Your task to perform on an android device: open app "Lyft - Rideshare, Bikes, Scooters & Transit" (install if not already installed) Image 0: 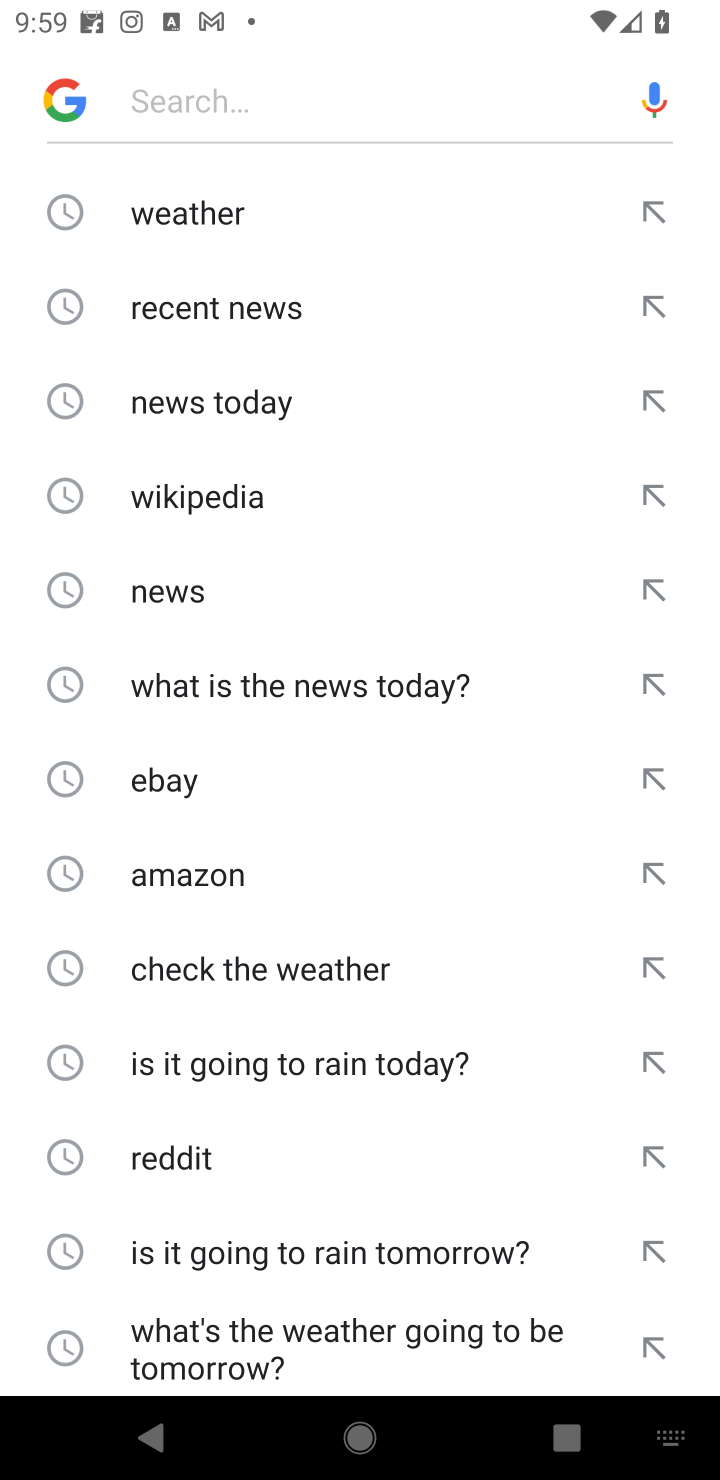
Step 0: press home button
Your task to perform on an android device: open app "Lyft - Rideshare, Bikes, Scooters & Transit" (install if not already installed) Image 1: 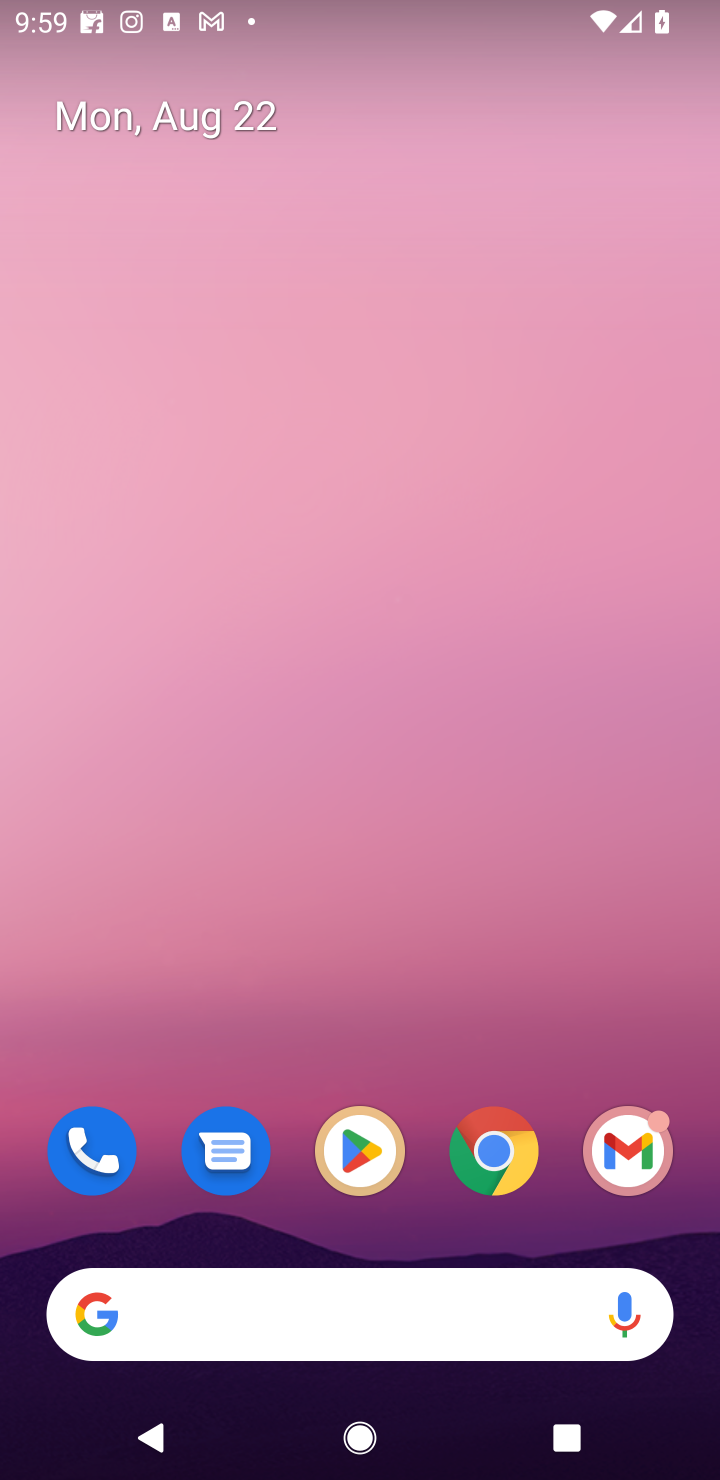
Step 1: click (351, 1149)
Your task to perform on an android device: open app "Lyft - Rideshare, Bikes, Scooters & Transit" (install if not already installed) Image 2: 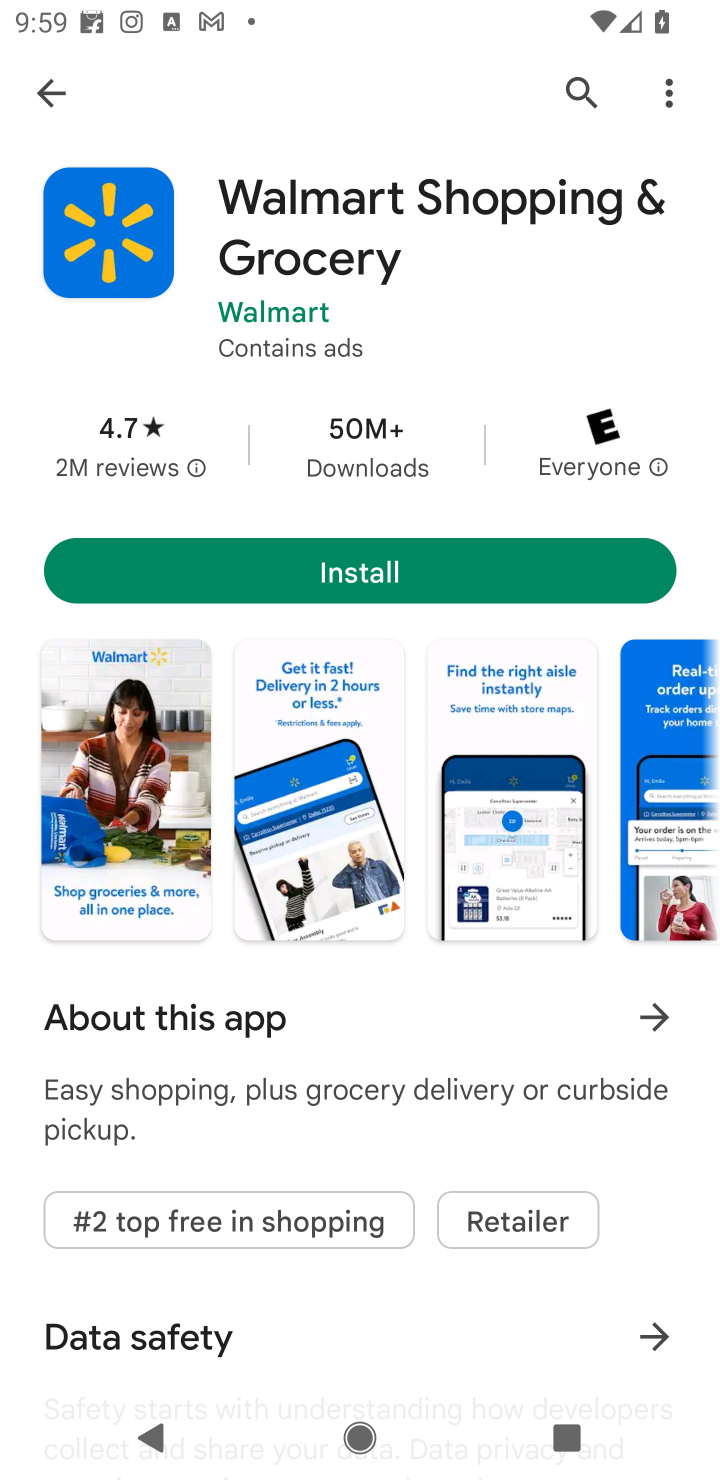
Step 2: click (588, 77)
Your task to perform on an android device: open app "Lyft - Rideshare, Bikes, Scooters & Transit" (install if not already installed) Image 3: 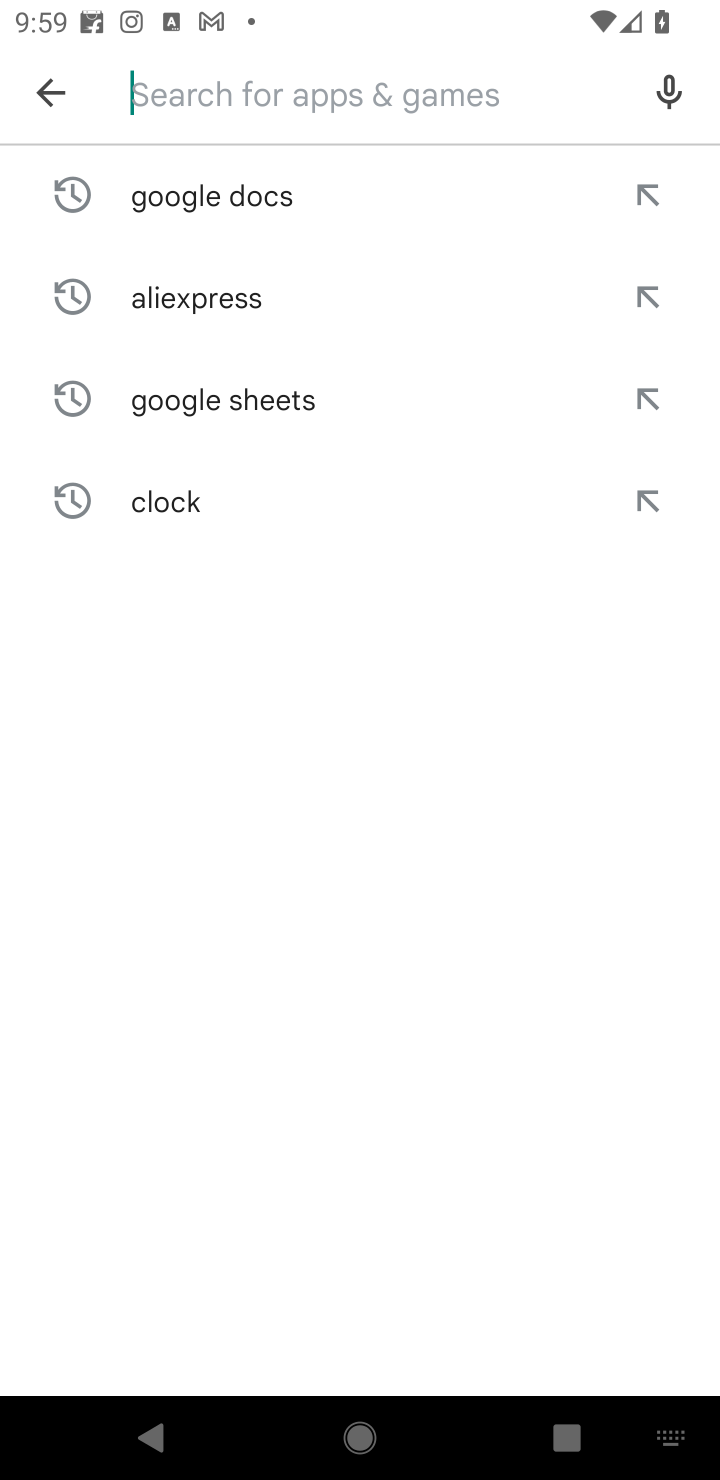
Step 3: type "Lyft - Rideshare, Bikes, Scooters & Transit"
Your task to perform on an android device: open app "Lyft - Rideshare, Bikes, Scooters & Transit" (install if not already installed) Image 4: 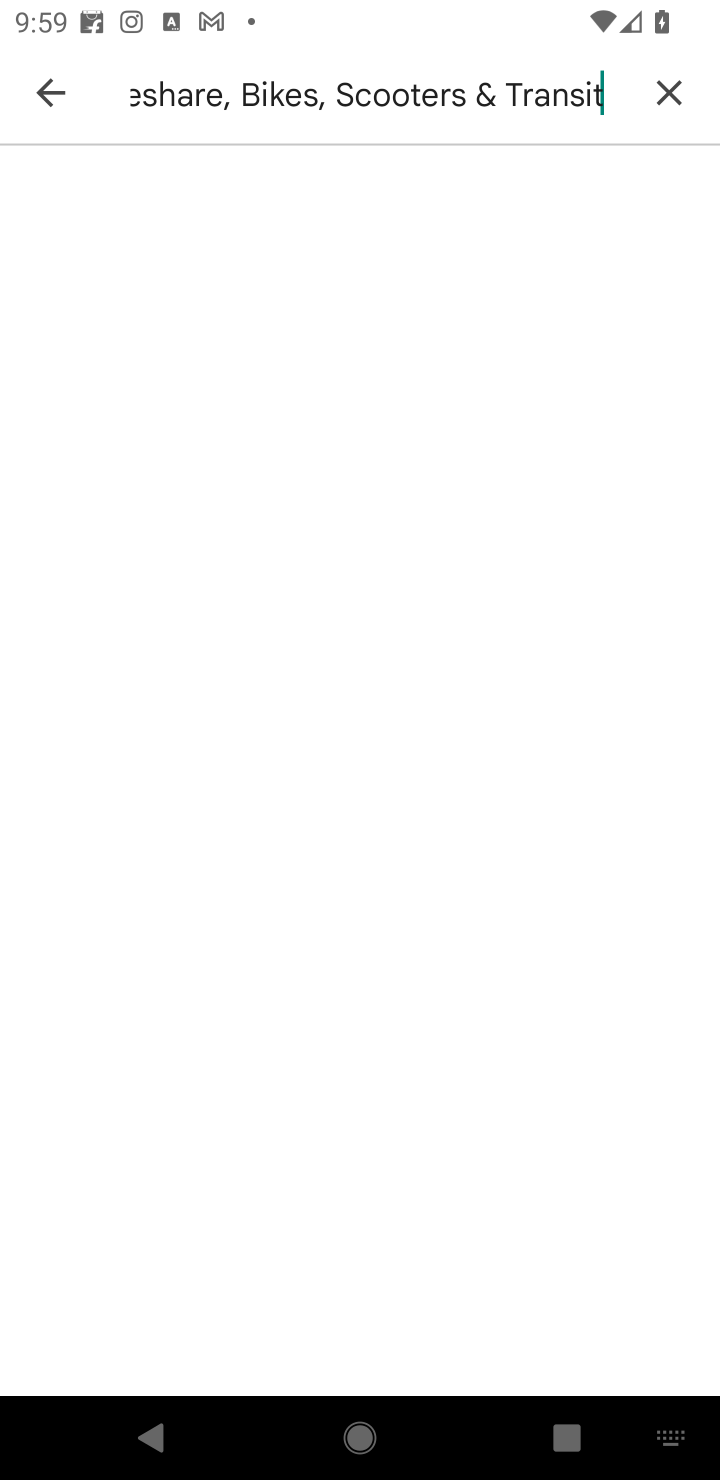
Step 4: click (675, 77)
Your task to perform on an android device: open app "Lyft - Rideshare, Bikes, Scooters & Transit" (install if not already installed) Image 5: 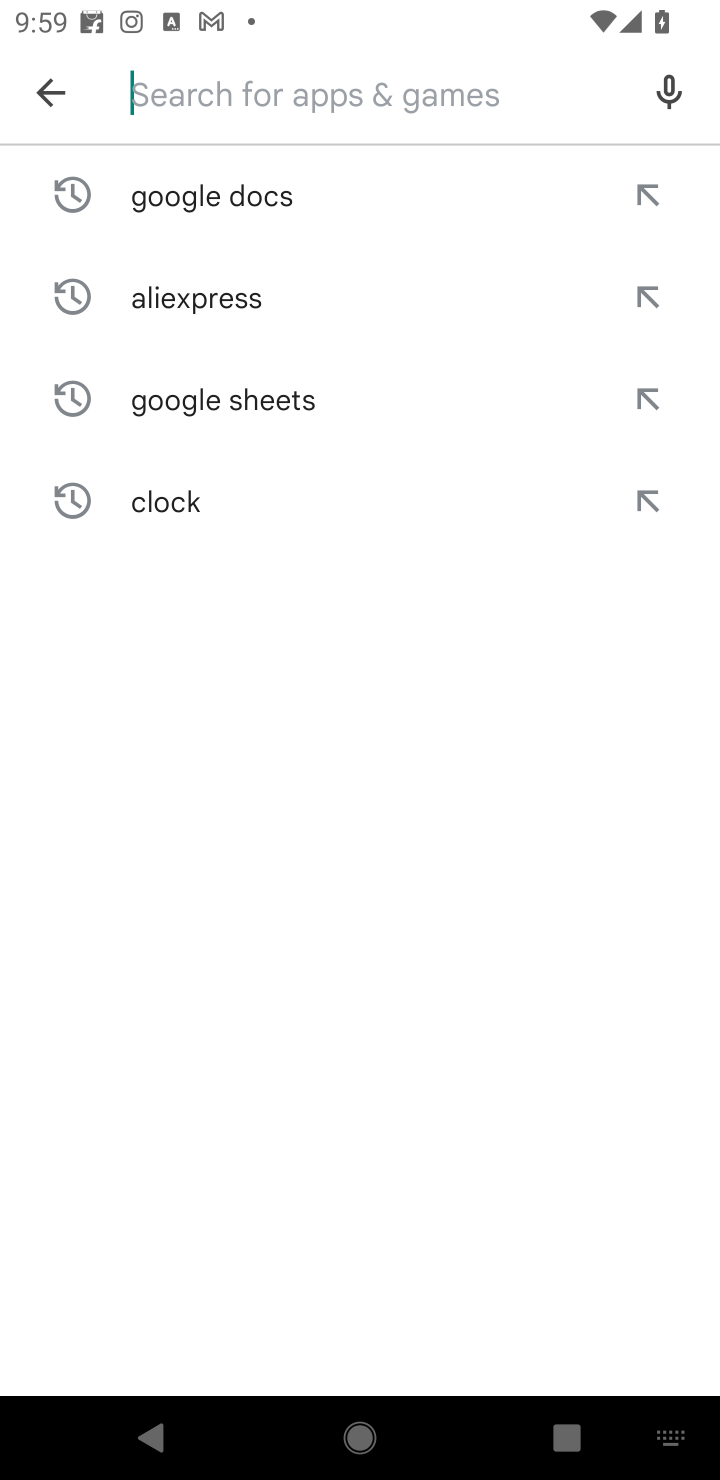
Step 5: type "Lyft Rideshare, Bikes, Scooters & Transit"
Your task to perform on an android device: open app "Lyft - Rideshare, Bikes, Scooters & Transit" (install if not already installed) Image 6: 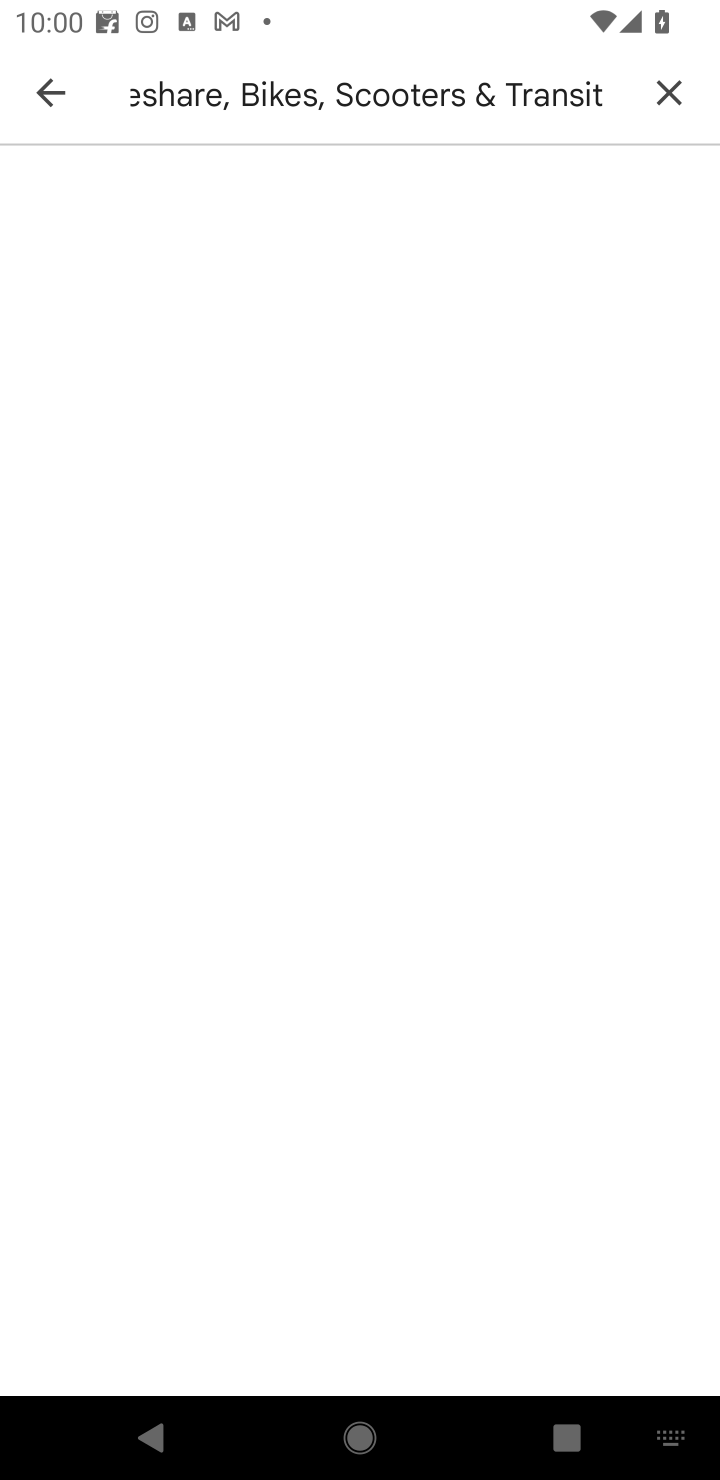
Step 6: task complete